Your task to perform on an android device: turn vacation reply on in the gmail app Image 0: 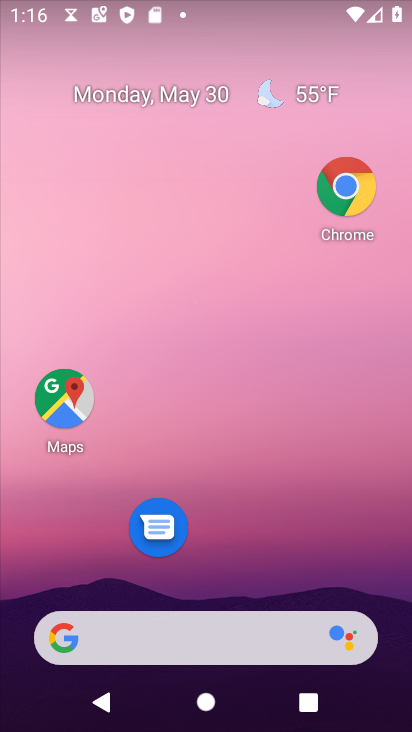
Step 0: drag from (193, 576) to (130, 113)
Your task to perform on an android device: turn vacation reply on in the gmail app Image 1: 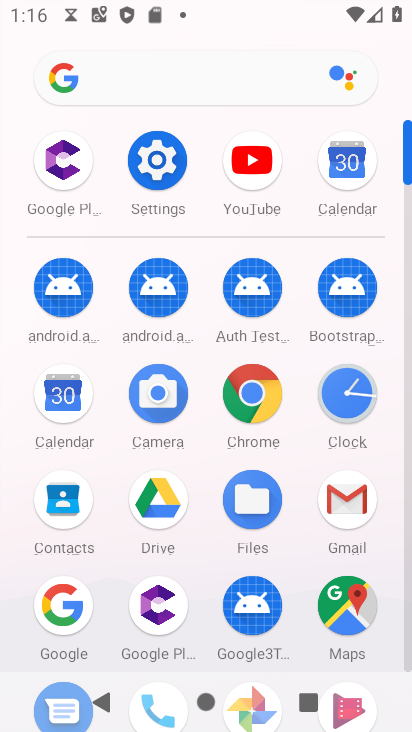
Step 1: click (352, 509)
Your task to perform on an android device: turn vacation reply on in the gmail app Image 2: 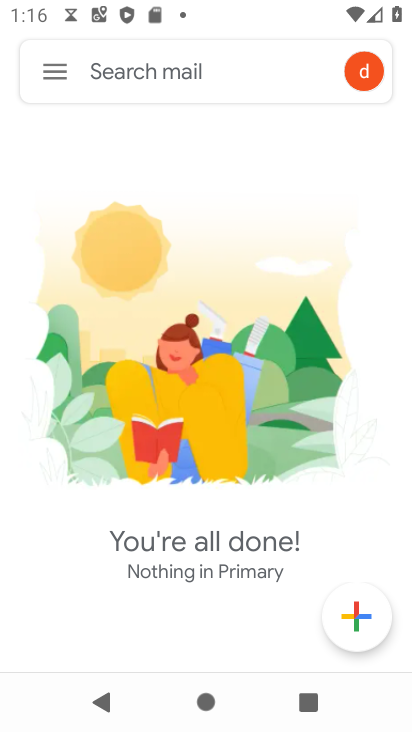
Step 2: click (51, 71)
Your task to perform on an android device: turn vacation reply on in the gmail app Image 3: 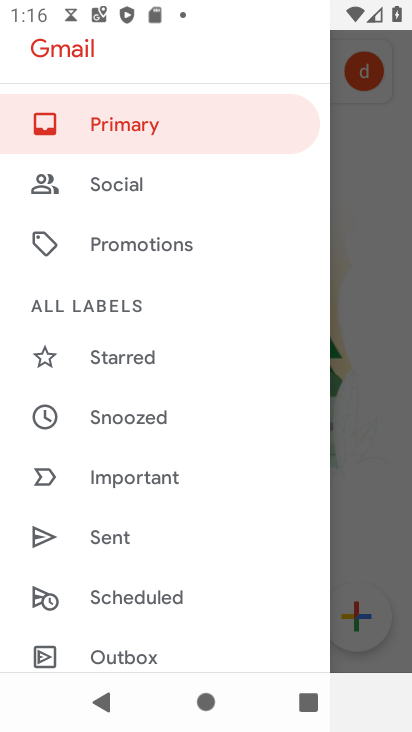
Step 3: drag from (139, 611) to (172, 93)
Your task to perform on an android device: turn vacation reply on in the gmail app Image 4: 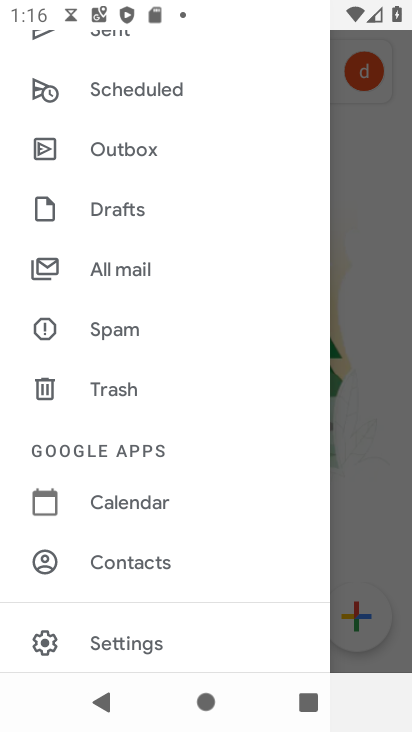
Step 4: click (123, 634)
Your task to perform on an android device: turn vacation reply on in the gmail app Image 5: 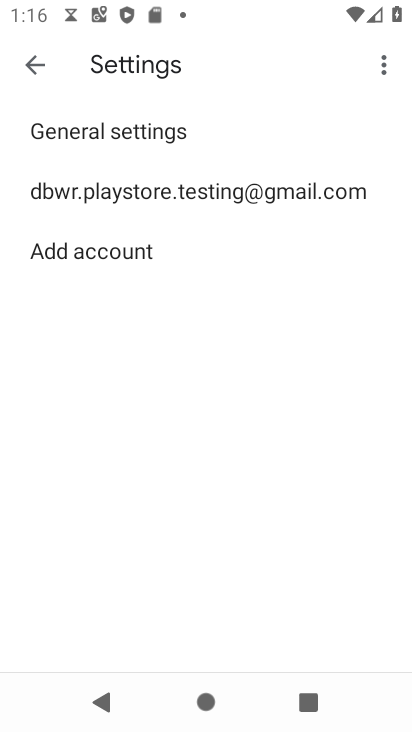
Step 5: click (217, 179)
Your task to perform on an android device: turn vacation reply on in the gmail app Image 6: 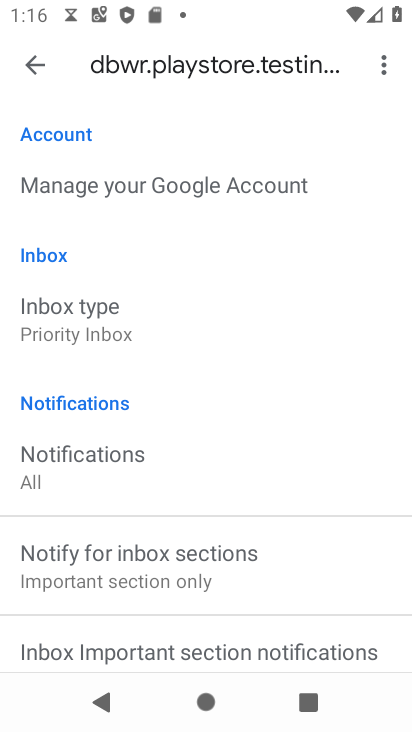
Step 6: drag from (228, 655) to (216, 124)
Your task to perform on an android device: turn vacation reply on in the gmail app Image 7: 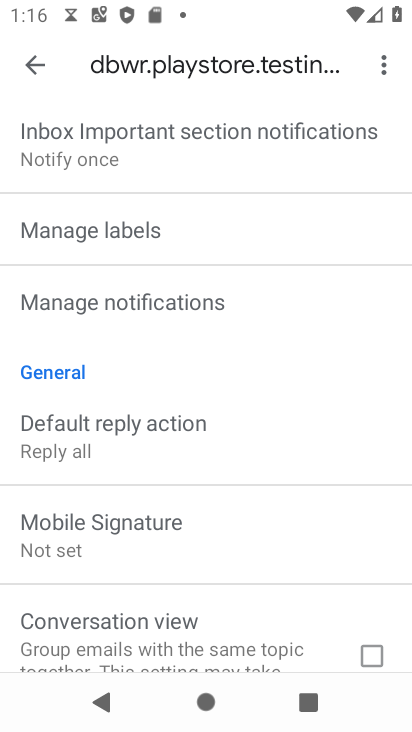
Step 7: drag from (176, 505) to (219, 17)
Your task to perform on an android device: turn vacation reply on in the gmail app Image 8: 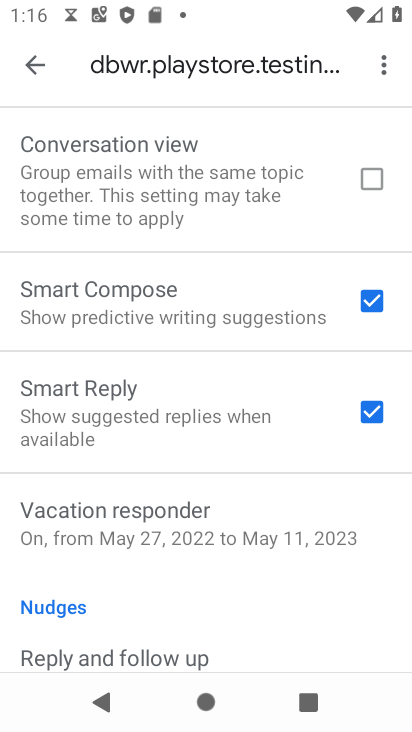
Step 8: drag from (173, 597) to (184, 460)
Your task to perform on an android device: turn vacation reply on in the gmail app Image 9: 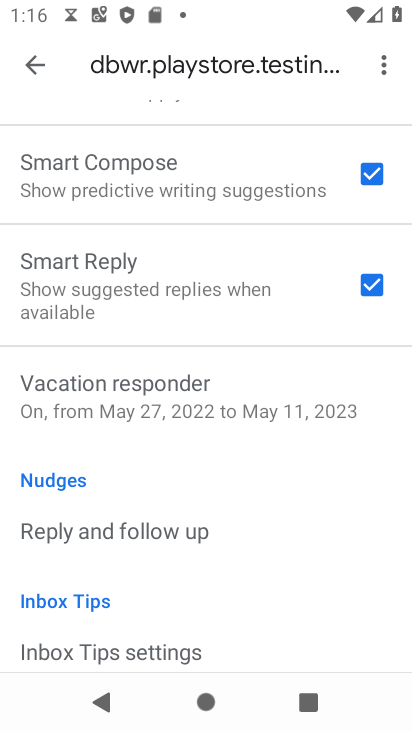
Step 9: click (224, 370)
Your task to perform on an android device: turn vacation reply on in the gmail app Image 10: 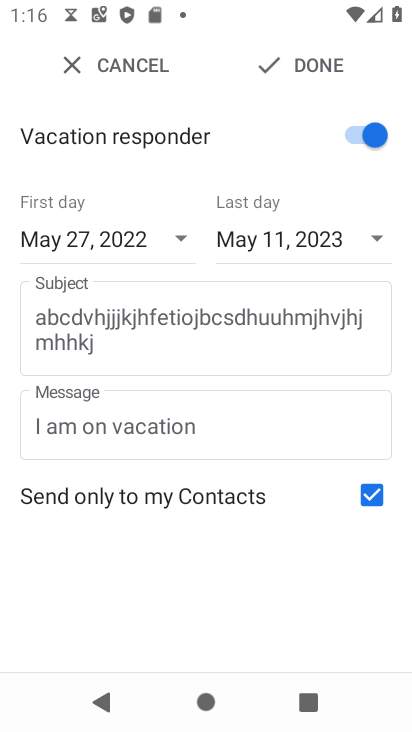
Step 10: drag from (210, 524) to (237, 147)
Your task to perform on an android device: turn vacation reply on in the gmail app Image 11: 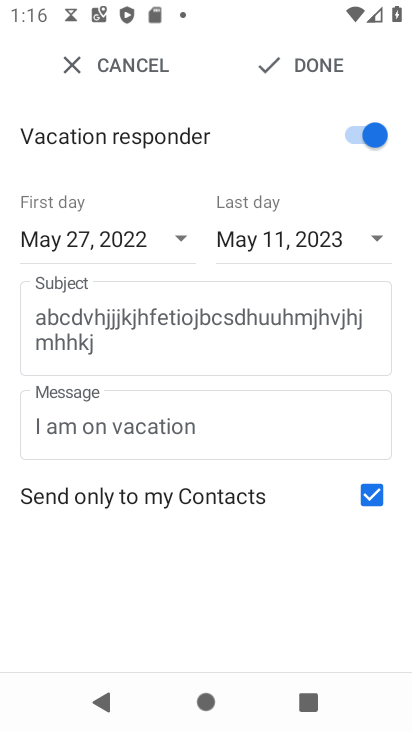
Step 11: click (292, 71)
Your task to perform on an android device: turn vacation reply on in the gmail app Image 12: 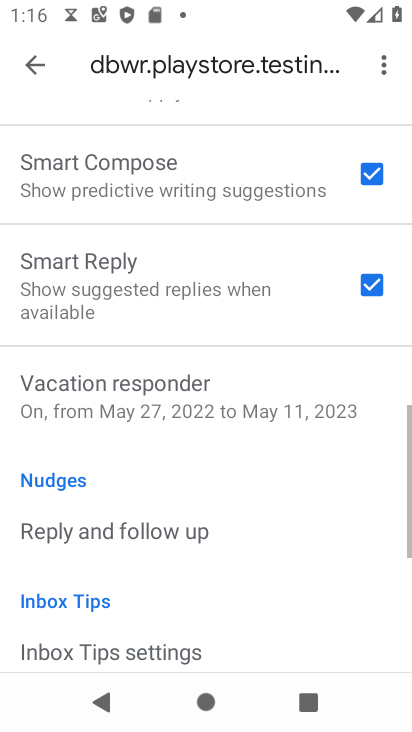
Step 12: task complete